Your task to perform on an android device: Open the calendar app, open the side menu, and click the "Day" option Image 0: 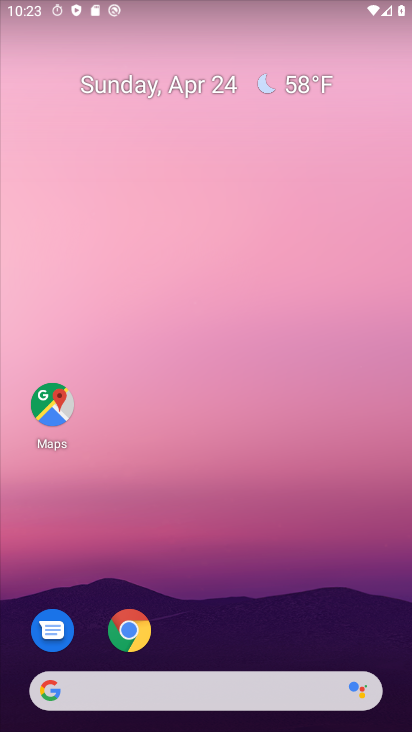
Step 0: drag from (284, 560) to (305, 240)
Your task to perform on an android device: Open the calendar app, open the side menu, and click the "Day" option Image 1: 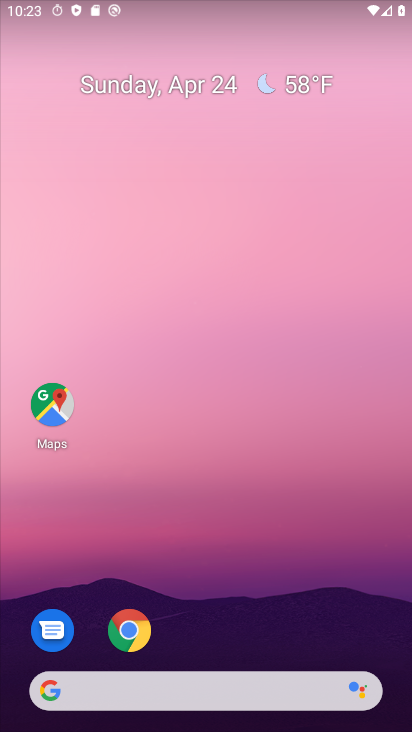
Step 1: drag from (280, 515) to (264, 178)
Your task to perform on an android device: Open the calendar app, open the side menu, and click the "Day" option Image 2: 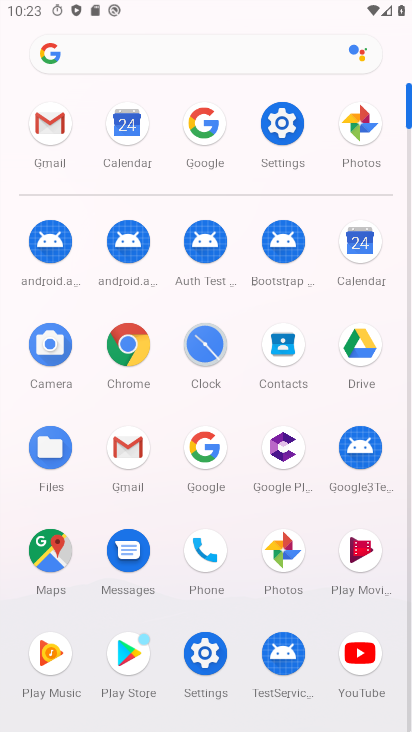
Step 2: click (365, 243)
Your task to perform on an android device: Open the calendar app, open the side menu, and click the "Day" option Image 3: 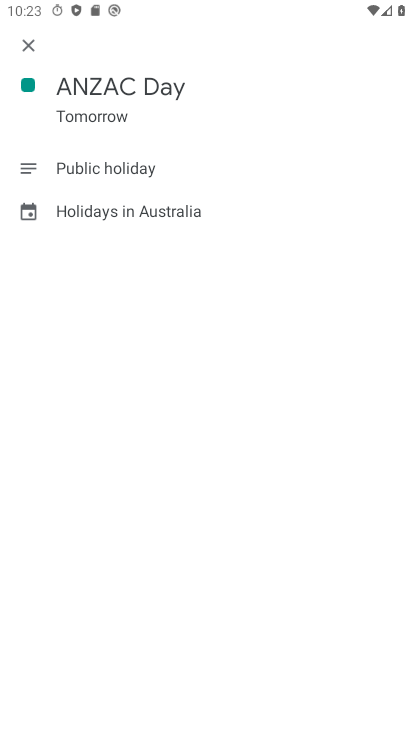
Step 3: click (21, 51)
Your task to perform on an android device: Open the calendar app, open the side menu, and click the "Day" option Image 4: 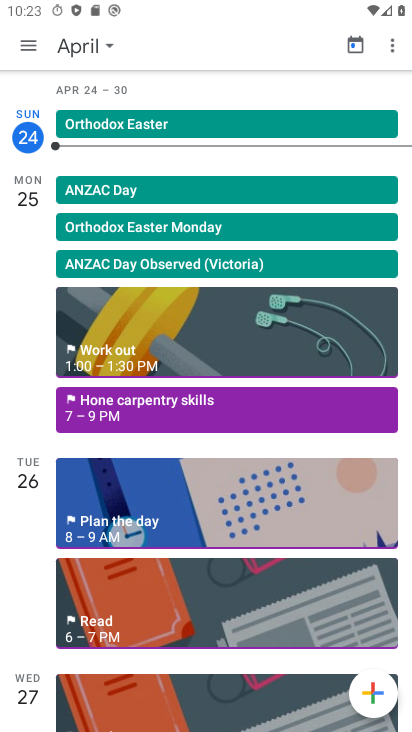
Step 4: click (25, 51)
Your task to perform on an android device: Open the calendar app, open the side menu, and click the "Day" option Image 5: 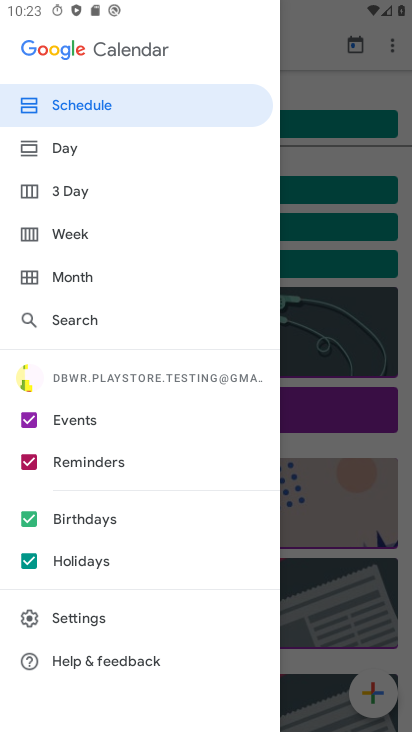
Step 5: click (85, 152)
Your task to perform on an android device: Open the calendar app, open the side menu, and click the "Day" option Image 6: 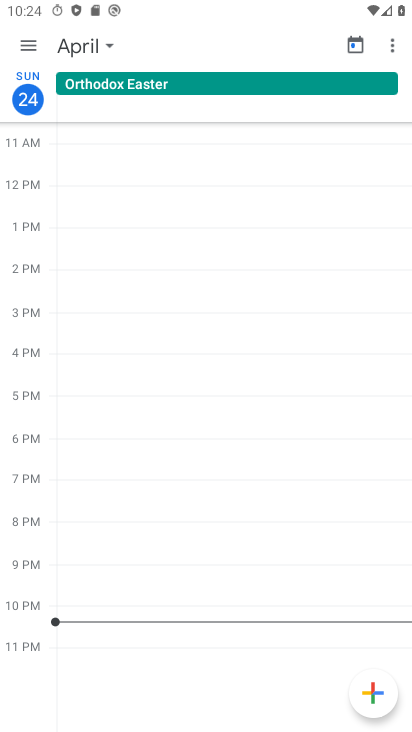
Step 6: task complete